Your task to perform on an android device: Open Wikipedia Image 0: 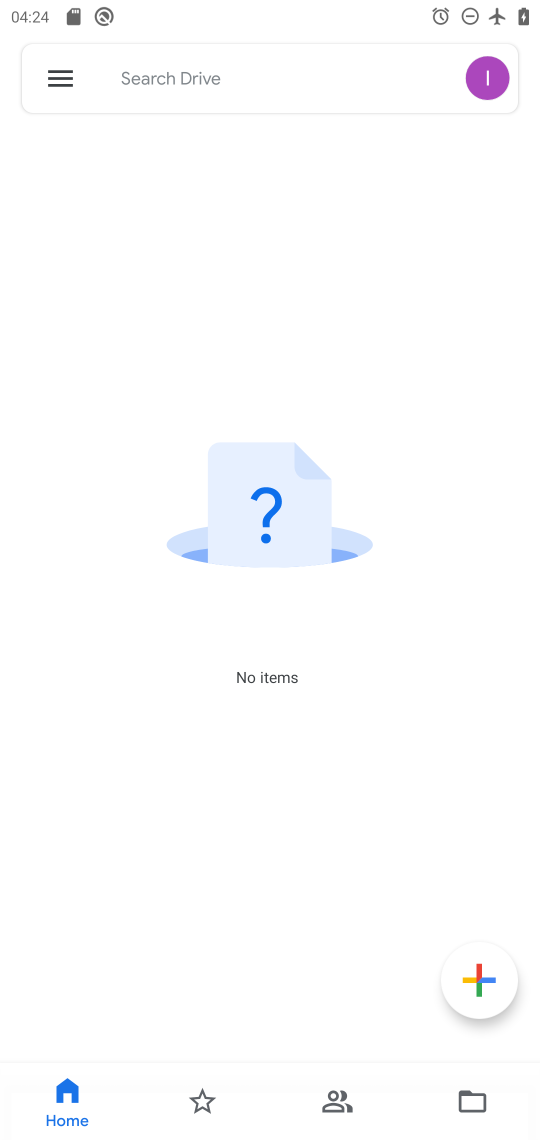
Step 0: press home button
Your task to perform on an android device: Open Wikipedia Image 1: 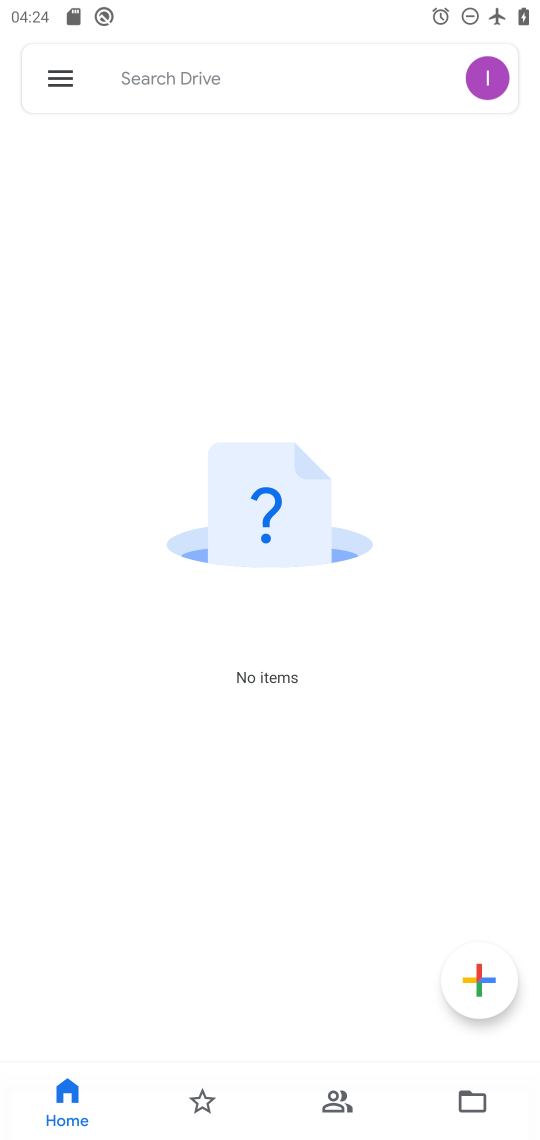
Step 1: press home button
Your task to perform on an android device: Open Wikipedia Image 2: 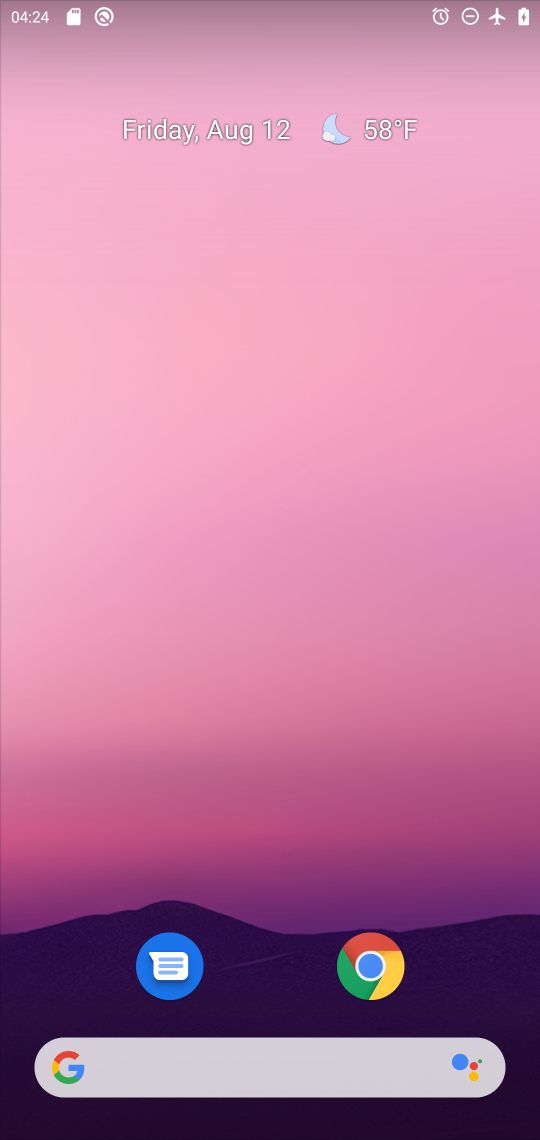
Step 2: drag from (257, 921) to (209, 10)
Your task to perform on an android device: Open Wikipedia Image 3: 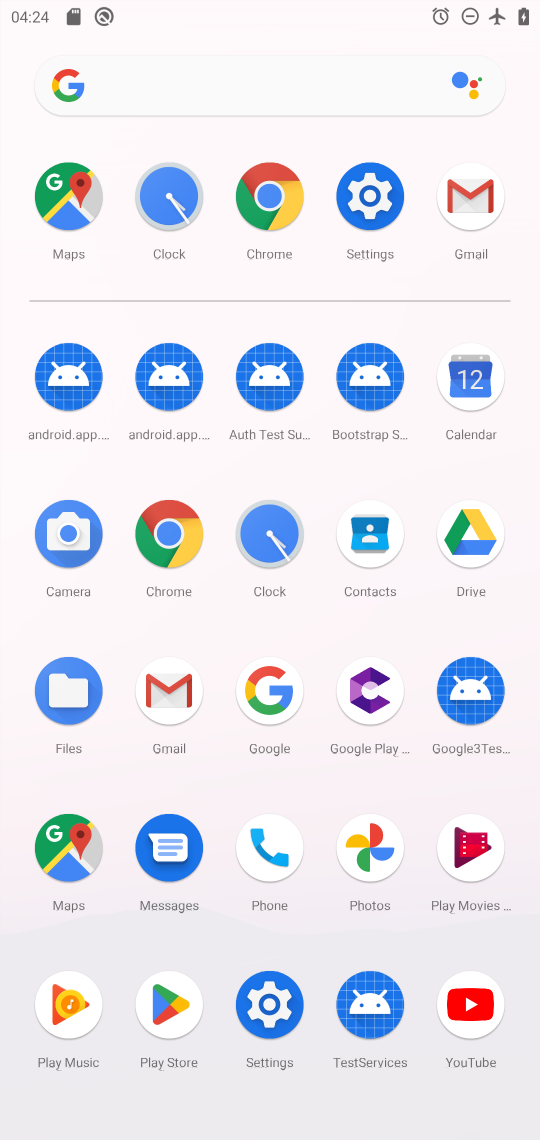
Step 3: click (169, 524)
Your task to perform on an android device: Open Wikipedia Image 4: 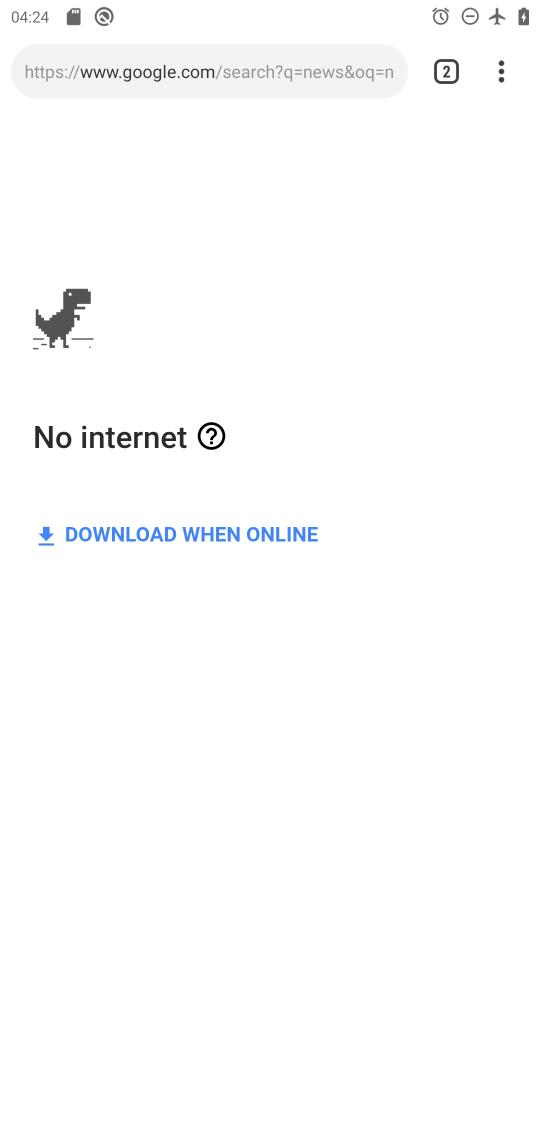
Step 4: click (261, 72)
Your task to perform on an android device: Open Wikipedia Image 5: 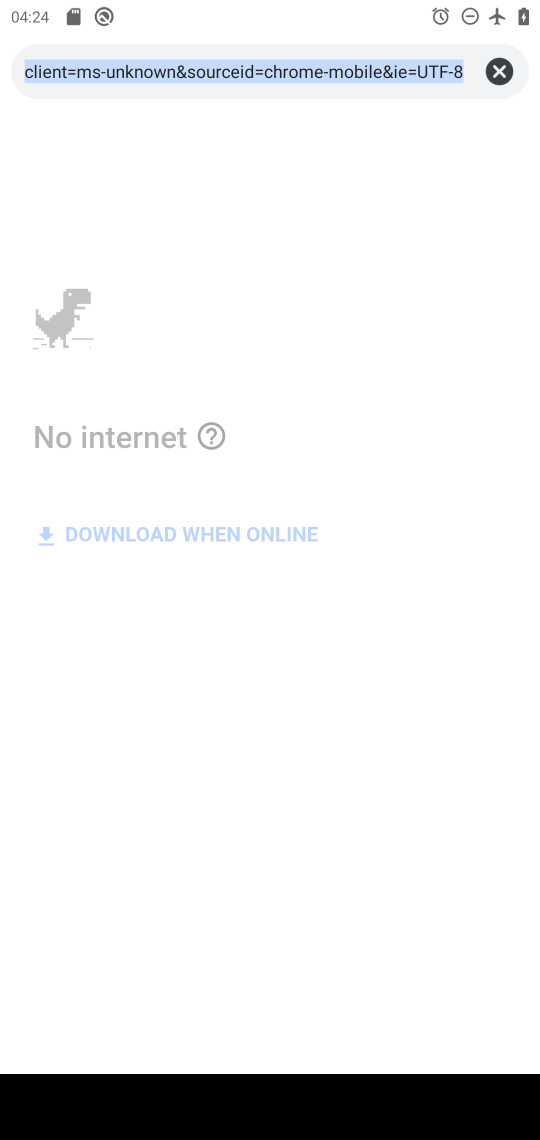
Step 5: type "wikipedia"
Your task to perform on an android device: Open Wikipedia Image 6: 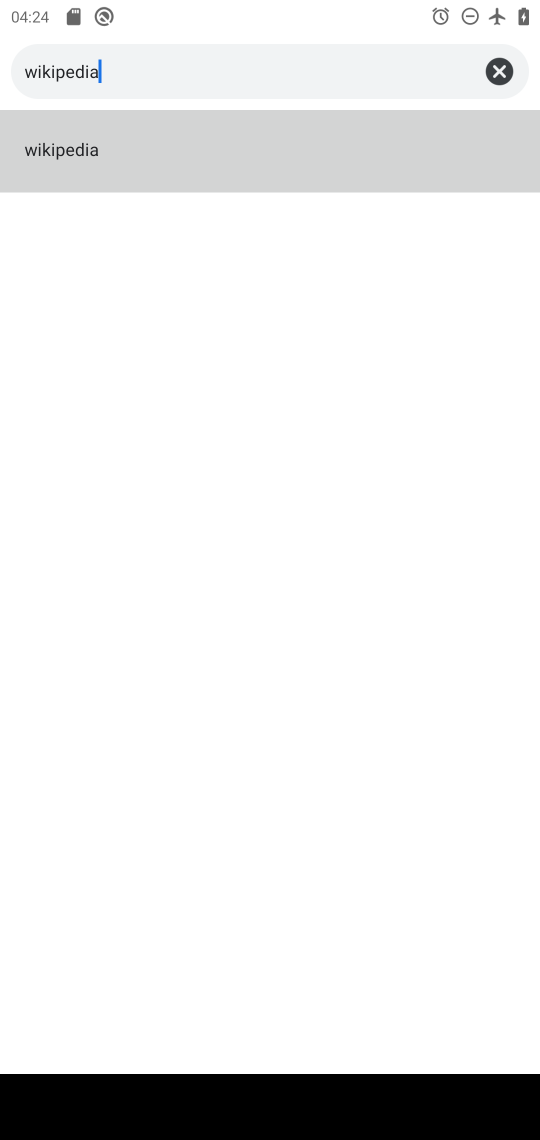
Step 6: click (78, 139)
Your task to perform on an android device: Open Wikipedia Image 7: 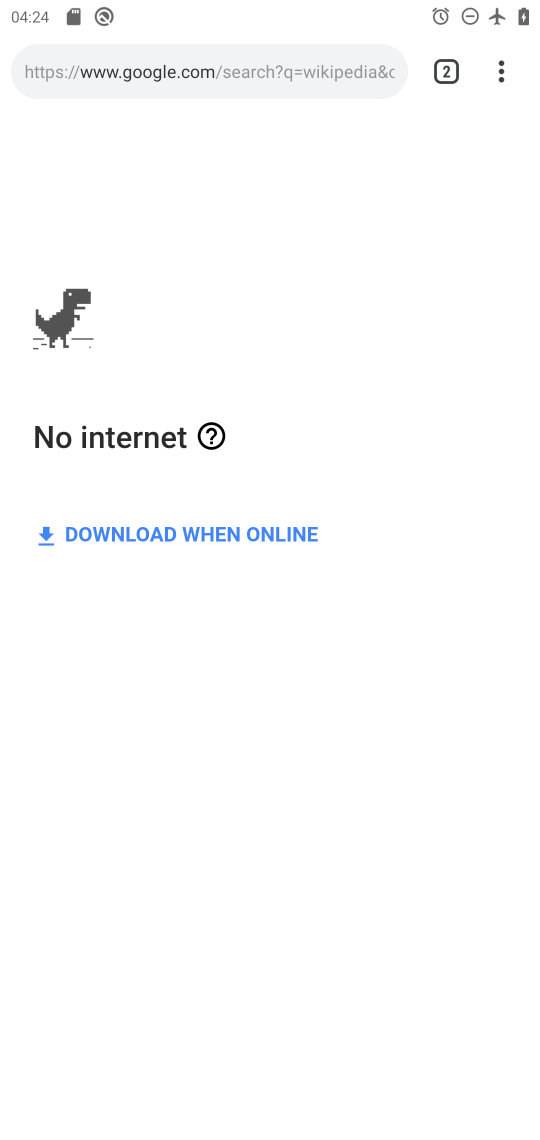
Step 7: task complete